Your task to perform on an android device: turn on improve location accuracy Image 0: 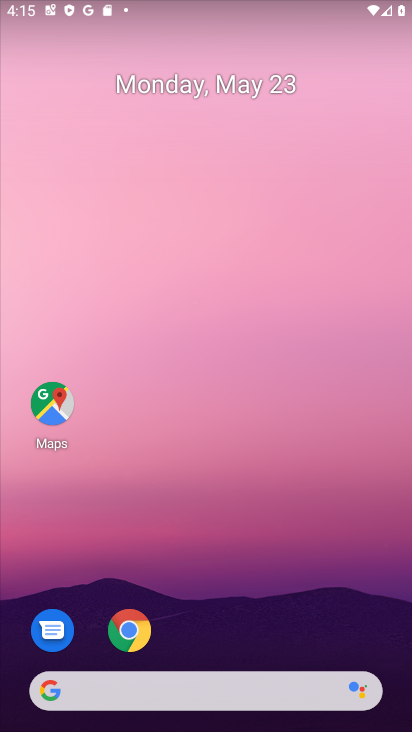
Step 0: press home button
Your task to perform on an android device: turn on improve location accuracy Image 1: 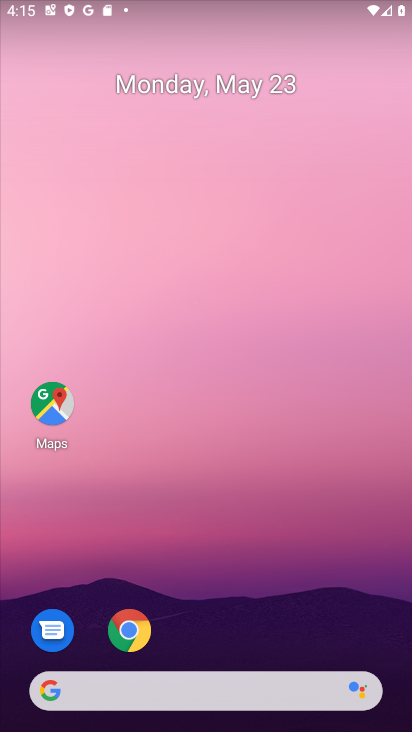
Step 1: drag from (213, 650) to (242, 16)
Your task to perform on an android device: turn on improve location accuracy Image 2: 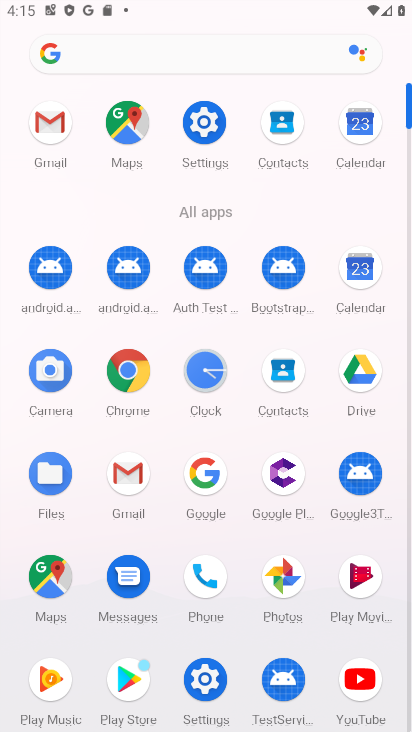
Step 2: click (202, 119)
Your task to perform on an android device: turn on improve location accuracy Image 3: 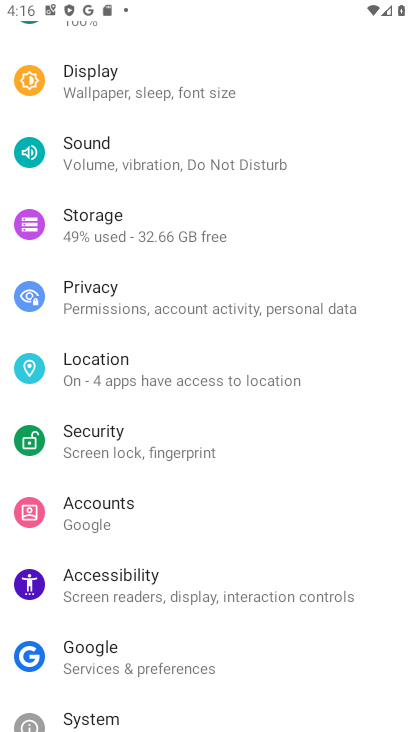
Step 3: click (140, 364)
Your task to perform on an android device: turn on improve location accuracy Image 4: 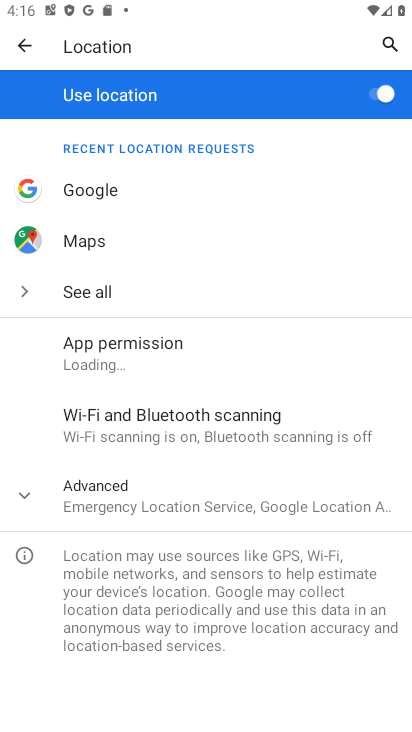
Step 4: click (24, 490)
Your task to perform on an android device: turn on improve location accuracy Image 5: 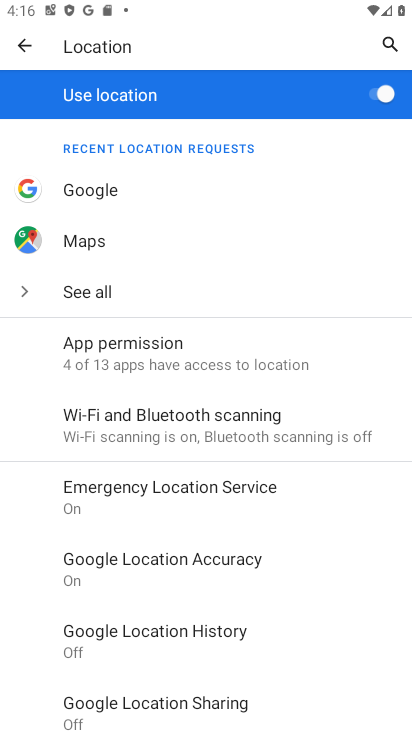
Step 5: click (116, 568)
Your task to perform on an android device: turn on improve location accuracy Image 6: 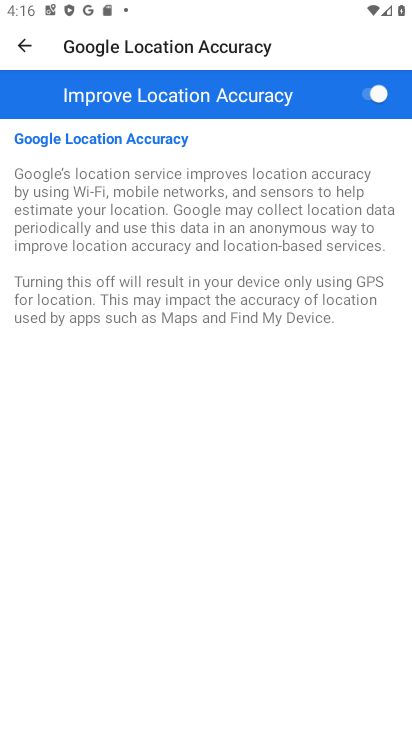
Step 6: task complete